Your task to perform on an android device: Open CNN.com Image 0: 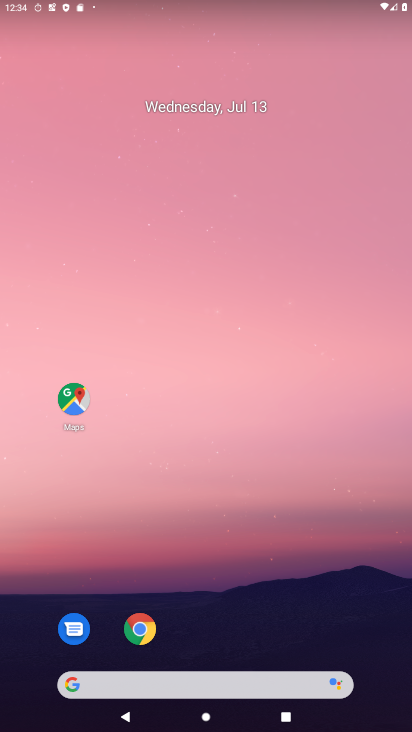
Step 0: click (154, 623)
Your task to perform on an android device: Open CNN.com Image 1: 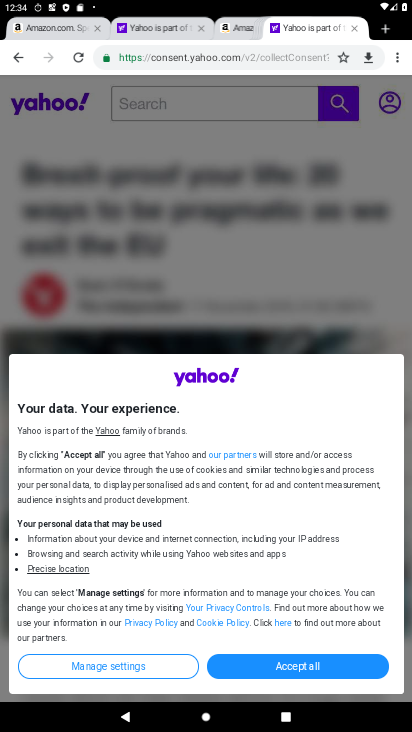
Step 1: click (389, 30)
Your task to perform on an android device: Open CNN.com Image 2: 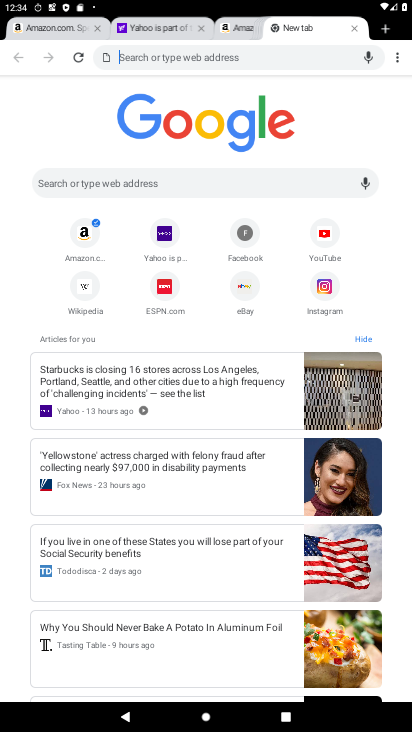
Step 2: click (197, 177)
Your task to perform on an android device: Open CNN.com Image 3: 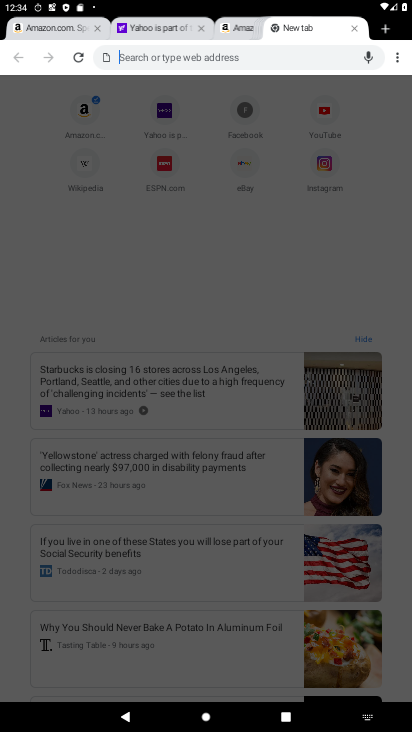
Step 3: type "CNN.com"
Your task to perform on an android device: Open CNN.com Image 4: 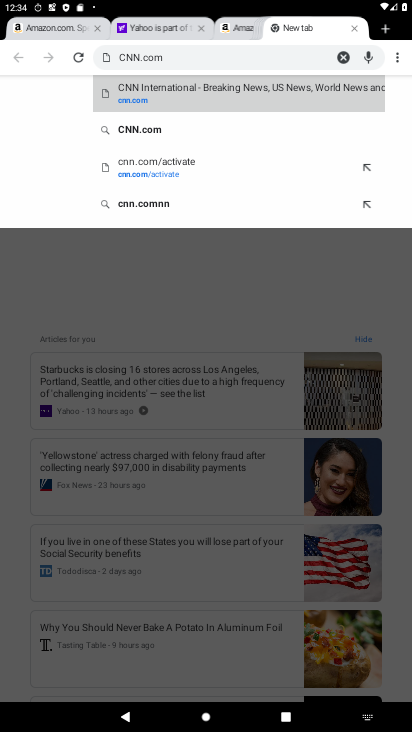
Step 4: click (262, 98)
Your task to perform on an android device: Open CNN.com Image 5: 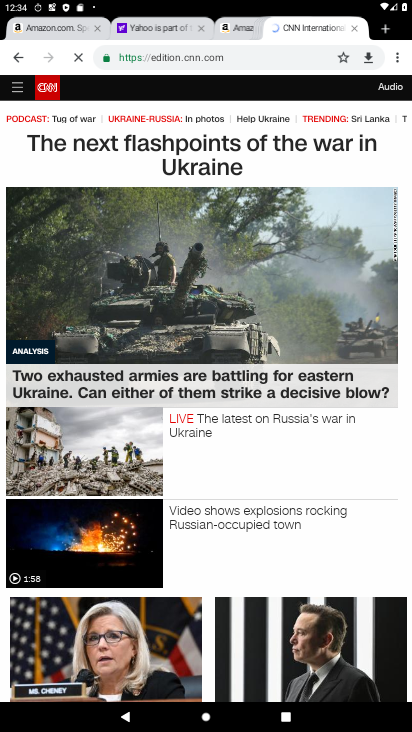
Step 5: task complete